Your task to perform on an android device: find which apps use the phone's location Image 0: 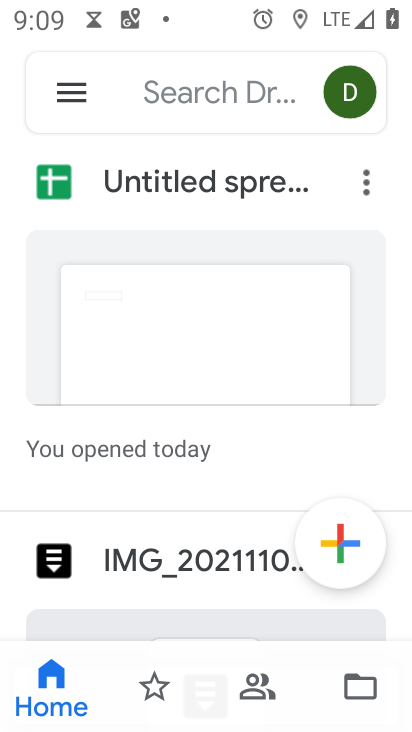
Step 0: press home button
Your task to perform on an android device: find which apps use the phone's location Image 1: 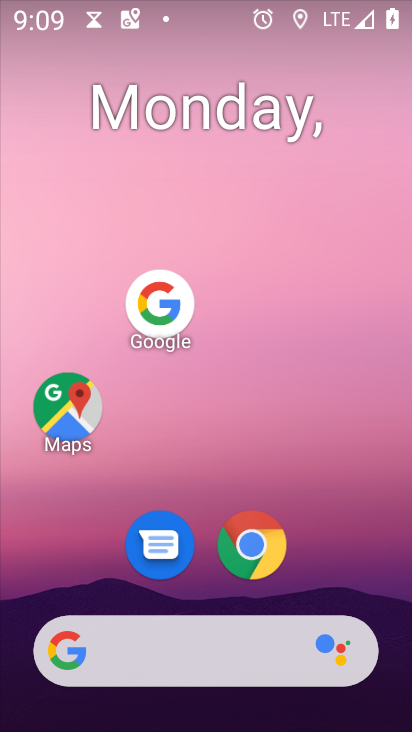
Step 1: drag from (189, 650) to (294, 181)
Your task to perform on an android device: find which apps use the phone's location Image 2: 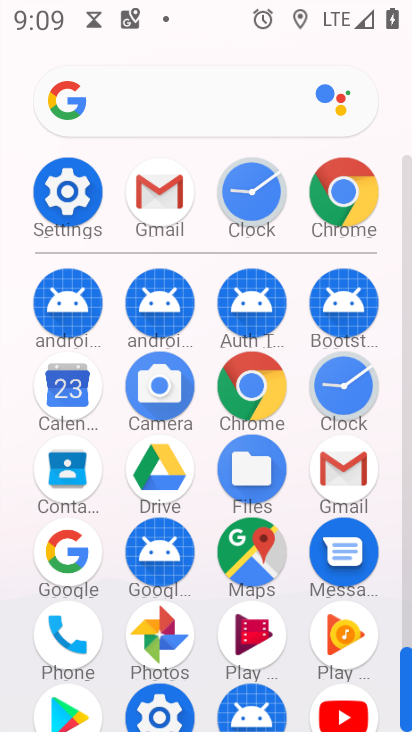
Step 2: click (69, 195)
Your task to perform on an android device: find which apps use the phone's location Image 3: 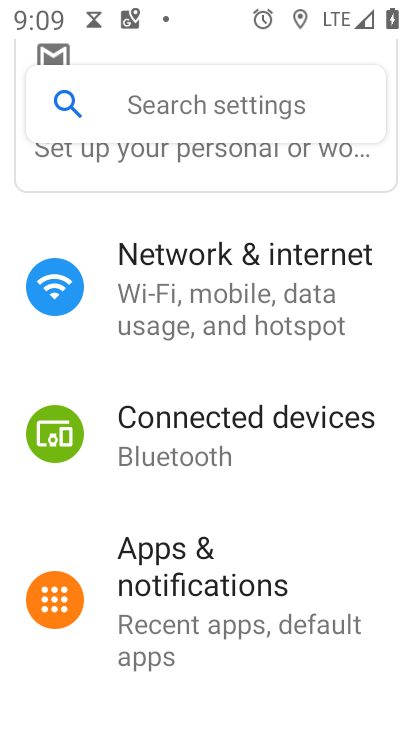
Step 3: drag from (201, 646) to (378, 107)
Your task to perform on an android device: find which apps use the phone's location Image 4: 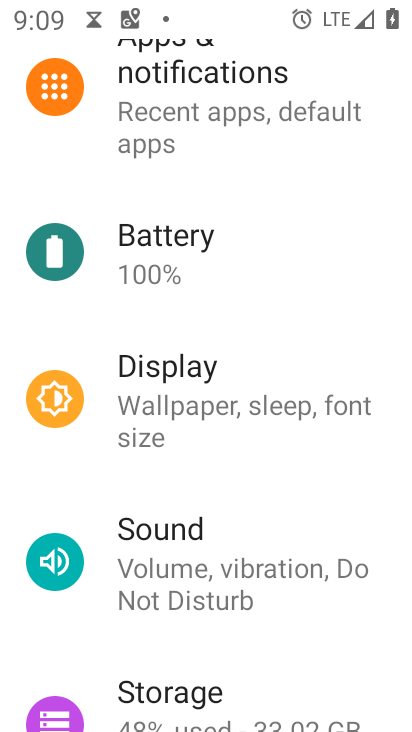
Step 4: drag from (204, 632) to (335, 80)
Your task to perform on an android device: find which apps use the phone's location Image 5: 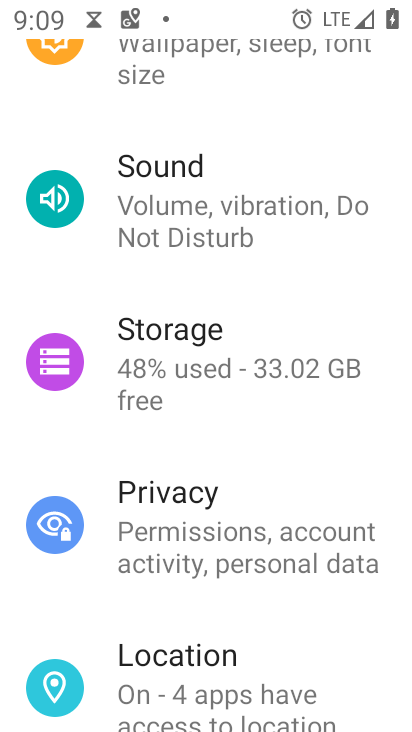
Step 5: click (165, 656)
Your task to perform on an android device: find which apps use the phone's location Image 6: 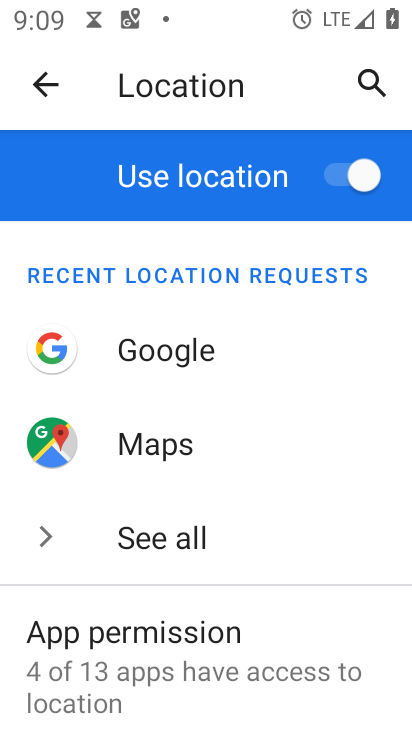
Step 6: click (175, 655)
Your task to perform on an android device: find which apps use the phone's location Image 7: 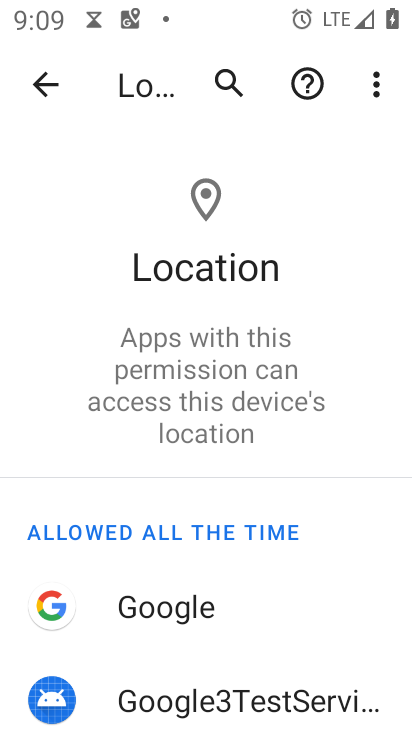
Step 7: drag from (207, 612) to (312, 239)
Your task to perform on an android device: find which apps use the phone's location Image 8: 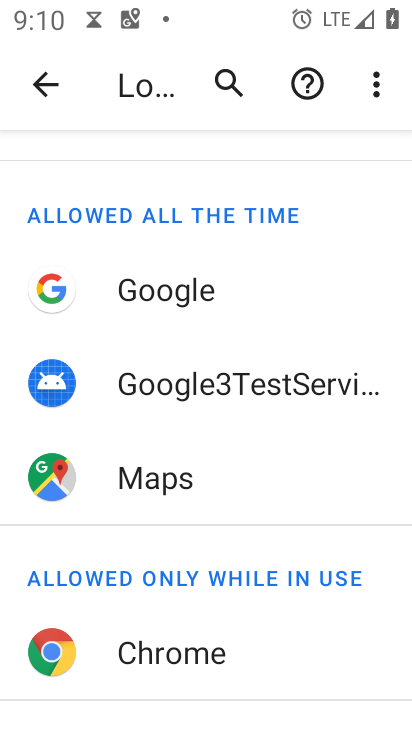
Step 8: drag from (194, 653) to (294, 184)
Your task to perform on an android device: find which apps use the phone's location Image 9: 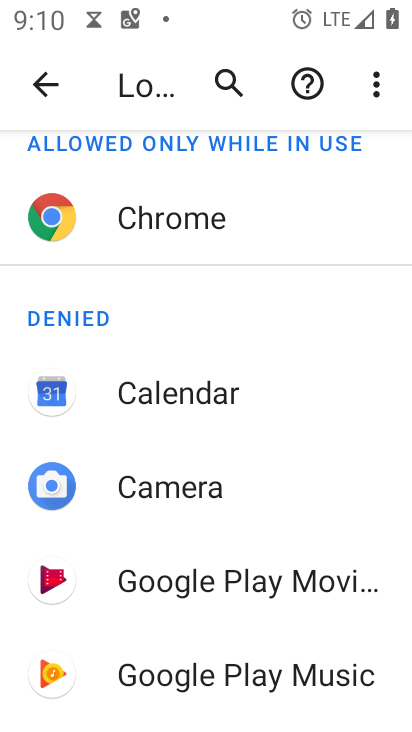
Step 9: drag from (202, 699) to (312, 211)
Your task to perform on an android device: find which apps use the phone's location Image 10: 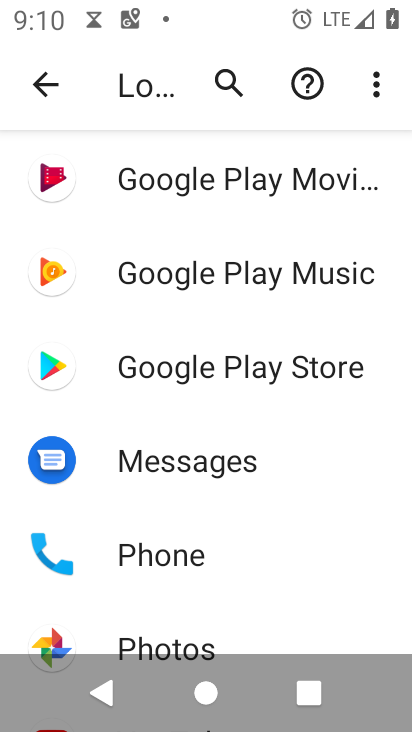
Step 10: click (209, 553)
Your task to perform on an android device: find which apps use the phone's location Image 11: 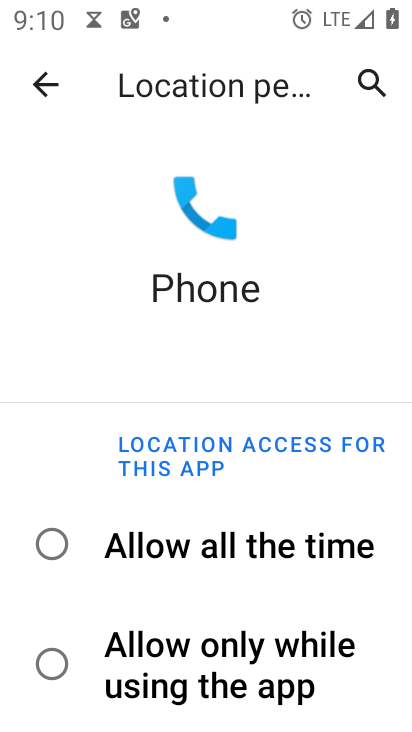
Step 11: task complete